Your task to perform on an android device: Go to Wikipedia Image 0: 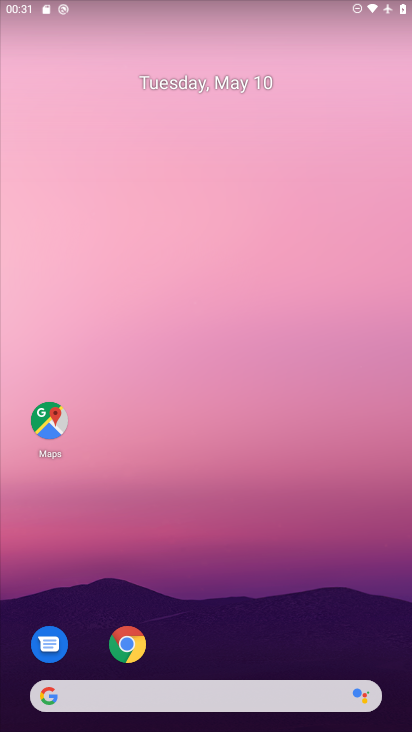
Step 0: drag from (227, 641) to (183, 194)
Your task to perform on an android device: Go to Wikipedia Image 1: 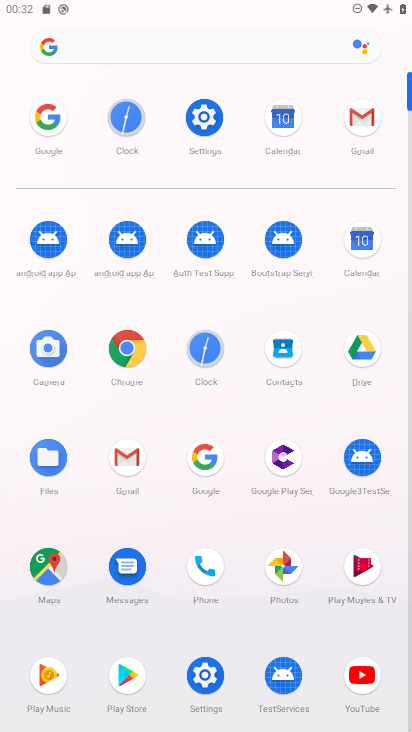
Step 1: click (43, 144)
Your task to perform on an android device: Go to Wikipedia Image 2: 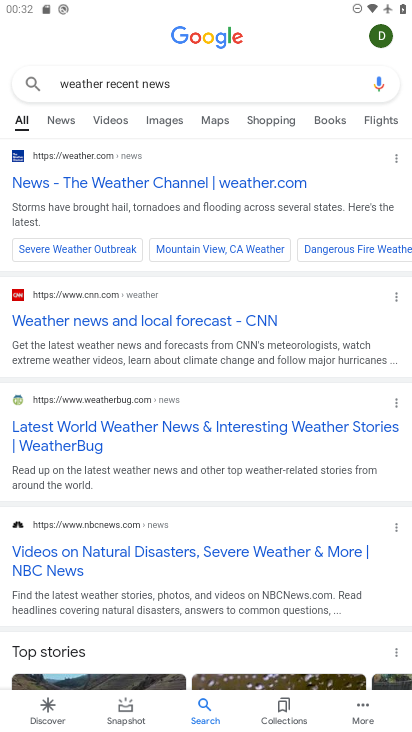
Step 2: click (228, 87)
Your task to perform on an android device: Go to Wikipedia Image 3: 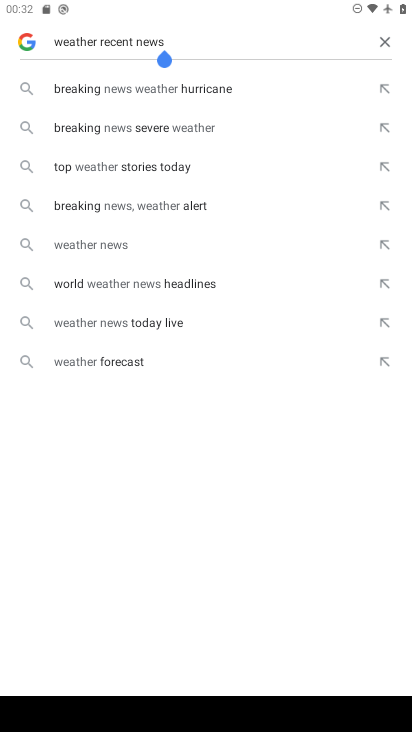
Step 3: click (378, 42)
Your task to perform on an android device: Go to Wikipedia Image 4: 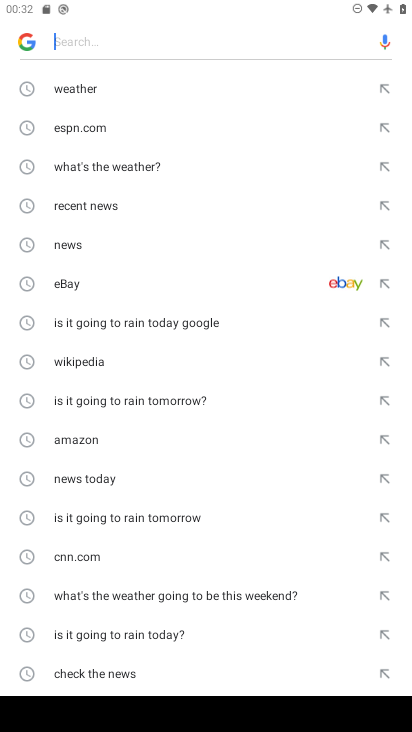
Step 4: click (138, 52)
Your task to perform on an android device: Go to Wikipedia Image 5: 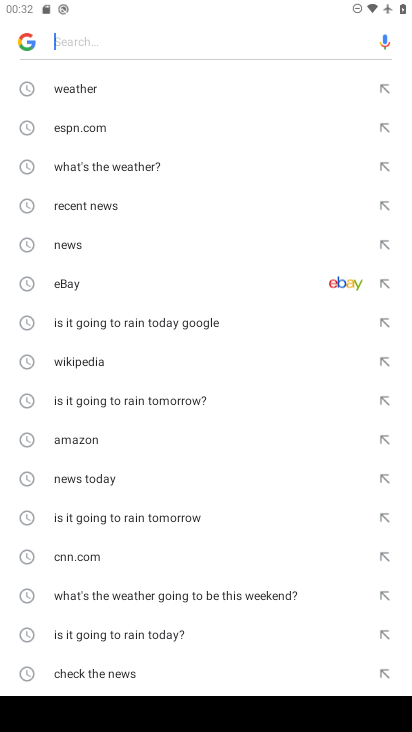
Step 5: type "Wikipedia"
Your task to perform on an android device: Go to Wikipedia Image 6: 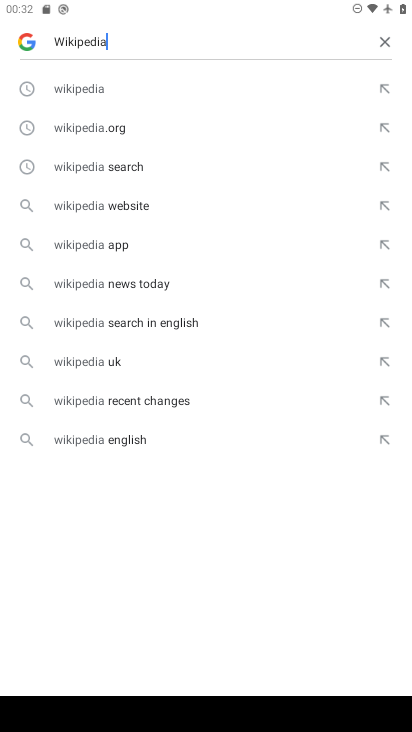
Step 6: click (137, 90)
Your task to perform on an android device: Go to Wikipedia Image 7: 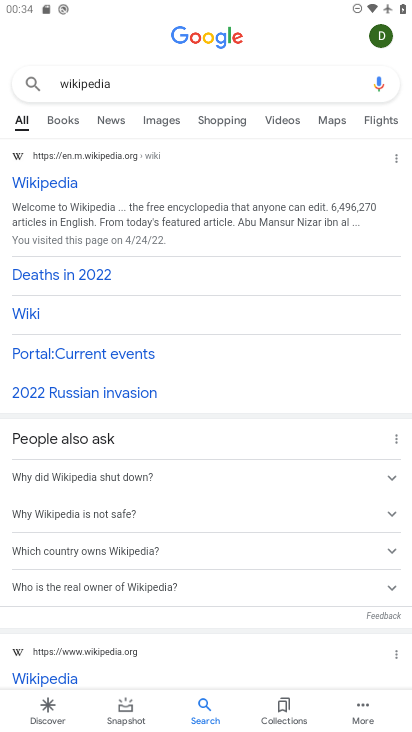
Step 7: click (50, 181)
Your task to perform on an android device: Go to Wikipedia Image 8: 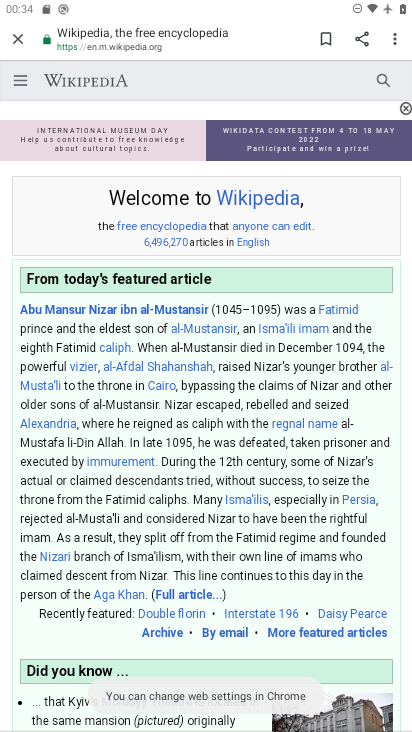
Step 8: task complete